Your task to perform on an android device: Open display settings Image 0: 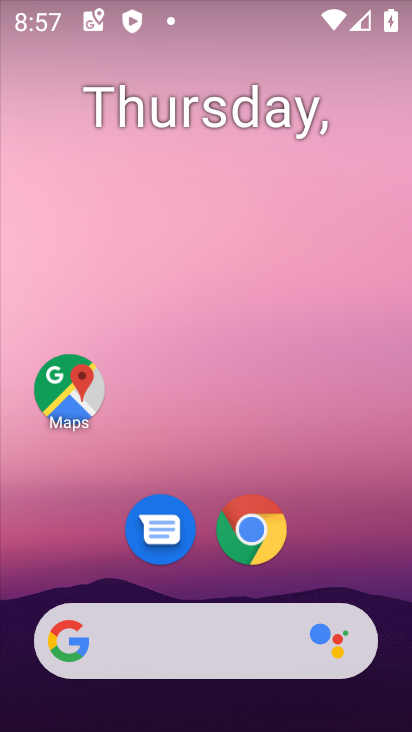
Step 0: drag from (253, 726) to (253, 5)
Your task to perform on an android device: Open display settings Image 1: 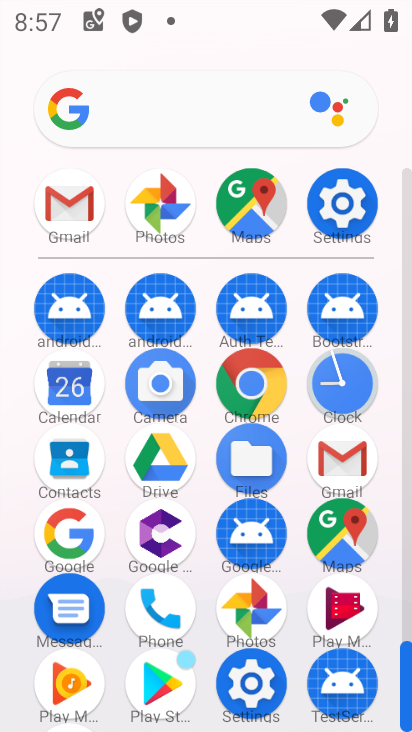
Step 1: click (343, 198)
Your task to perform on an android device: Open display settings Image 2: 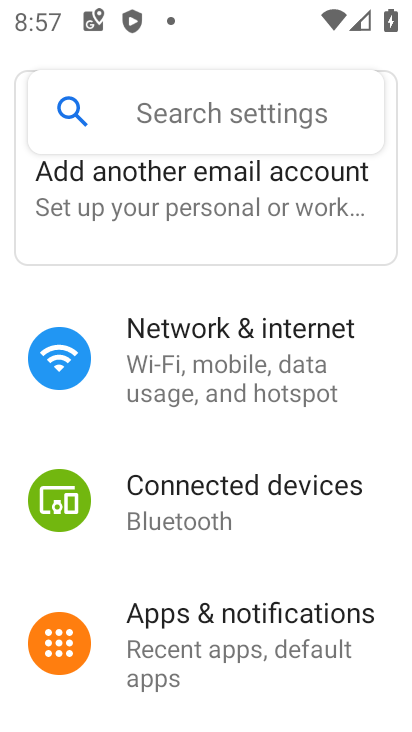
Step 2: drag from (105, 477) to (107, 231)
Your task to perform on an android device: Open display settings Image 3: 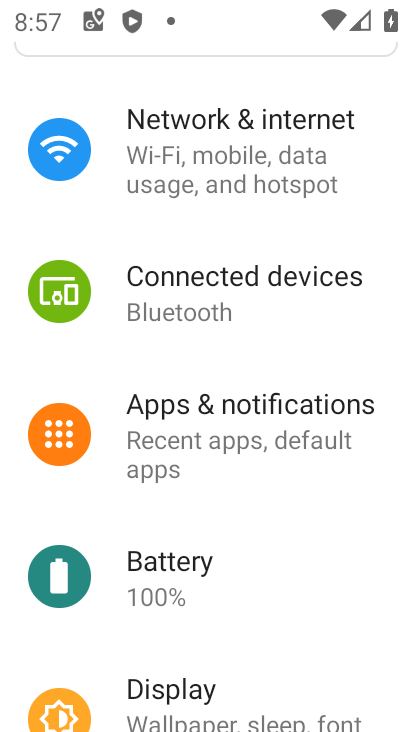
Step 3: click (189, 686)
Your task to perform on an android device: Open display settings Image 4: 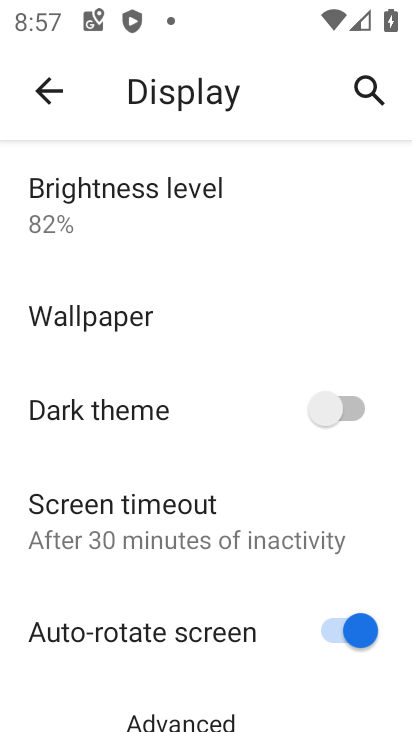
Step 4: task complete